Your task to perform on an android device: open the mobile data screen to see how much data has been used Image 0: 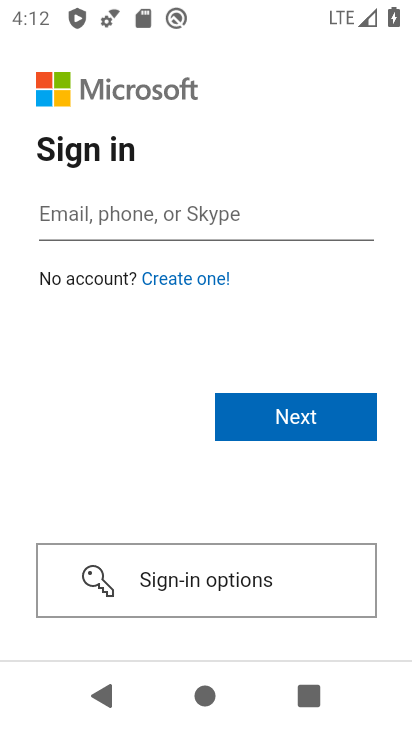
Step 0: press home button
Your task to perform on an android device: open the mobile data screen to see how much data has been used Image 1: 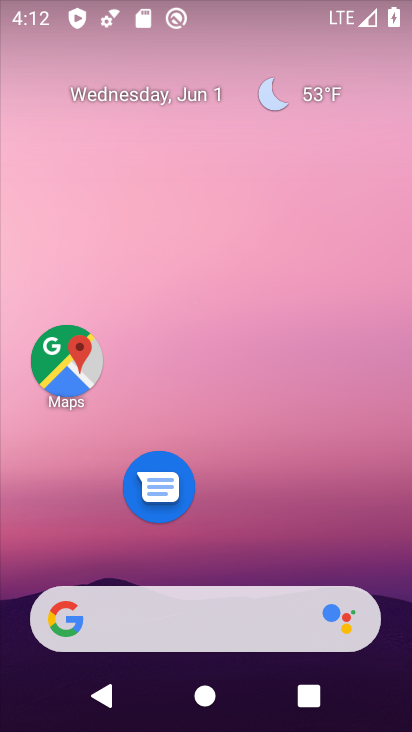
Step 1: drag from (214, 448) to (170, 3)
Your task to perform on an android device: open the mobile data screen to see how much data has been used Image 2: 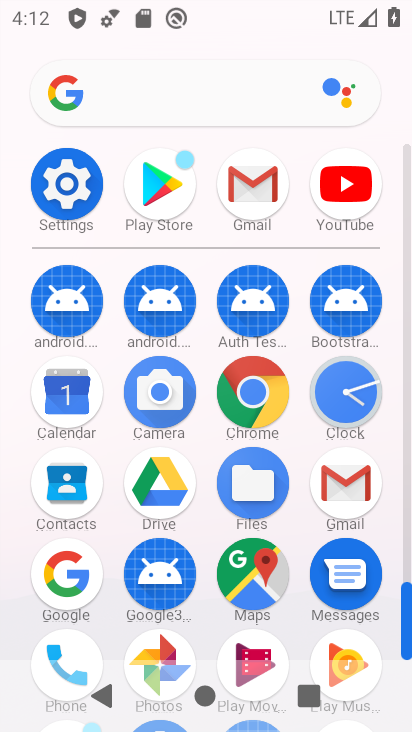
Step 2: click (63, 180)
Your task to perform on an android device: open the mobile data screen to see how much data has been used Image 3: 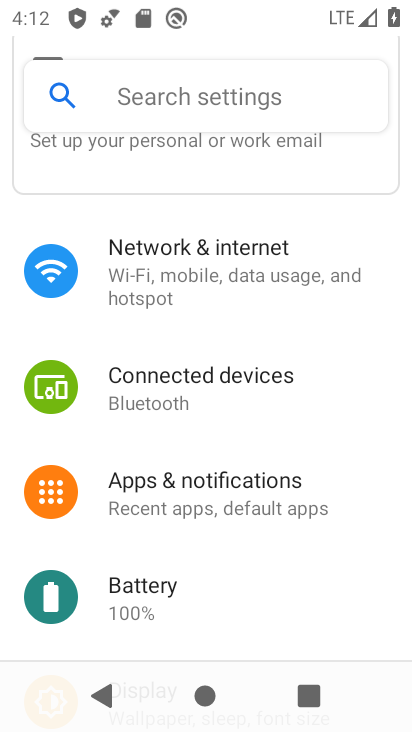
Step 3: drag from (214, 591) to (229, 351)
Your task to perform on an android device: open the mobile data screen to see how much data has been used Image 4: 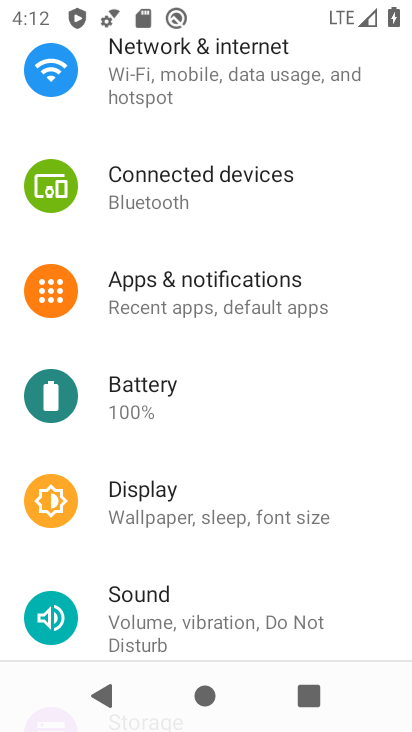
Step 4: drag from (238, 337) to (239, 421)
Your task to perform on an android device: open the mobile data screen to see how much data has been used Image 5: 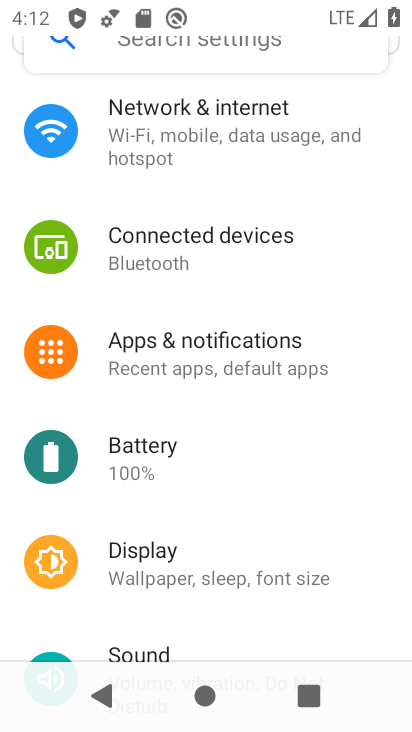
Step 5: click (220, 158)
Your task to perform on an android device: open the mobile data screen to see how much data has been used Image 6: 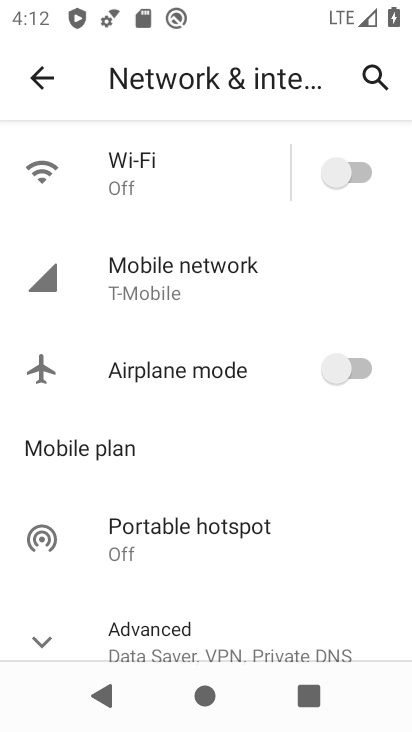
Step 6: click (189, 266)
Your task to perform on an android device: open the mobile data screen to see how much data has been used Image 7: 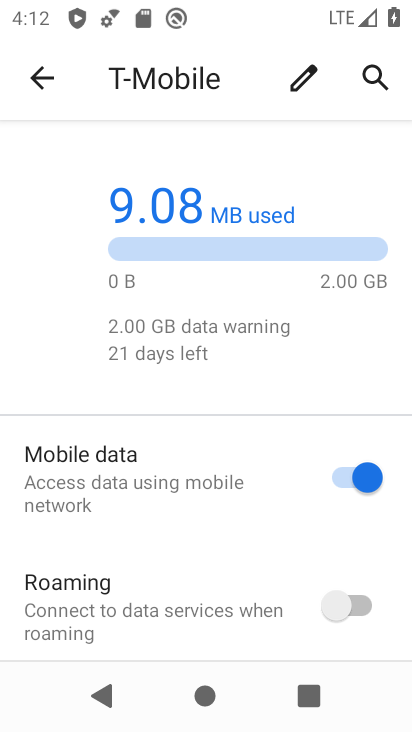
Step 7: drag from (216, 587) to (240, 249)
Your task to perform on an android device: open the mobile data screen to see how much data has been used Image 8: 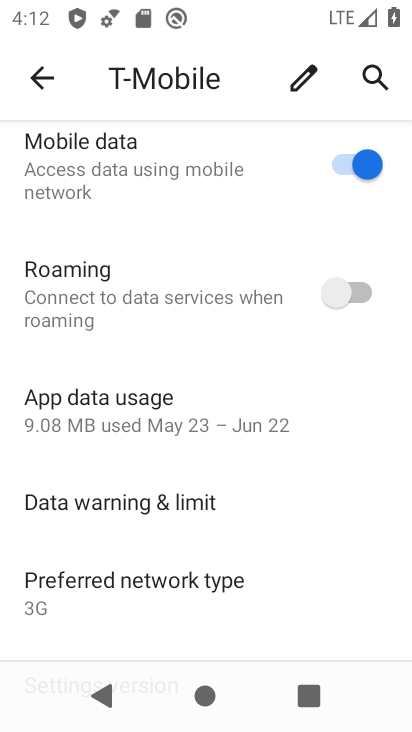
Step 8: drag from (197, 498) to (206, 456)
Your task to perform on an android device: open the mobile data screen to see how much data has been used Image 9: 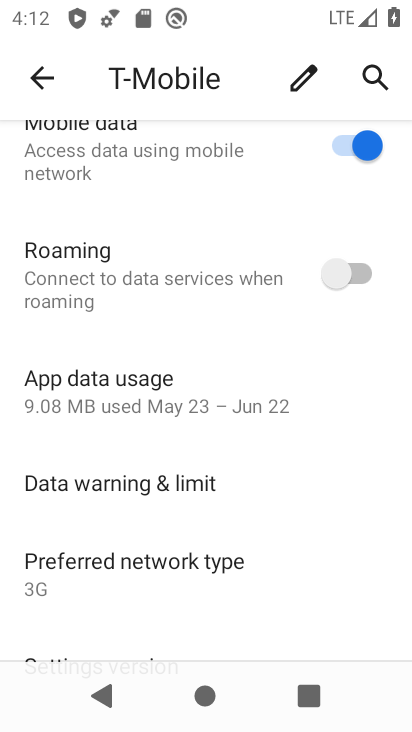
Step 9: click (174, 411)
Your task to perform on an android device: open the mobile data screen to see how much data has been used Image 10: 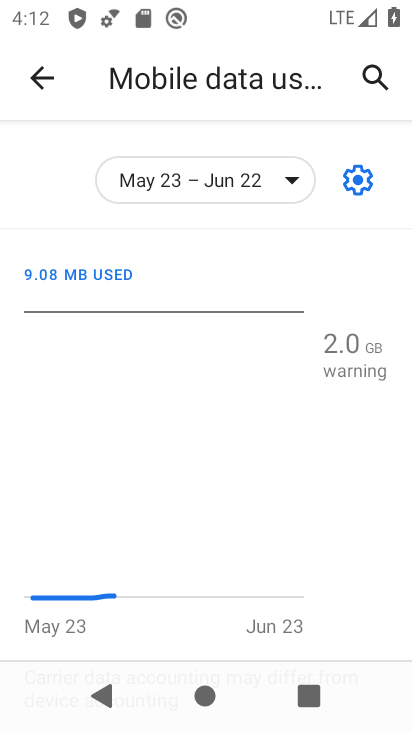
Step 10: task complete